Your task to perform on an android device: uninstall "NewsBreak: Local News & Alerts" Image 0: 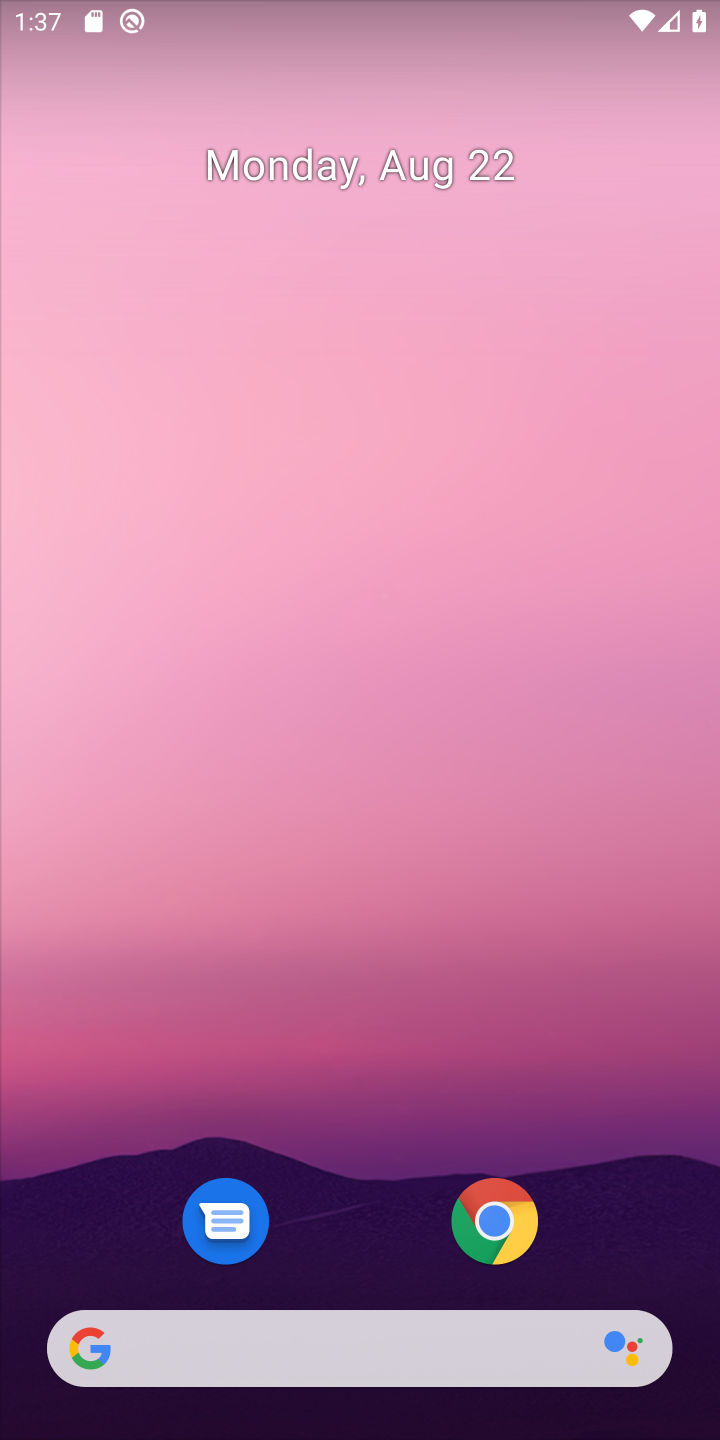
Step 0: press home button
Your task to perform on an android device: uninstall "NewsBreak: Local News & Alerts" Image 1: 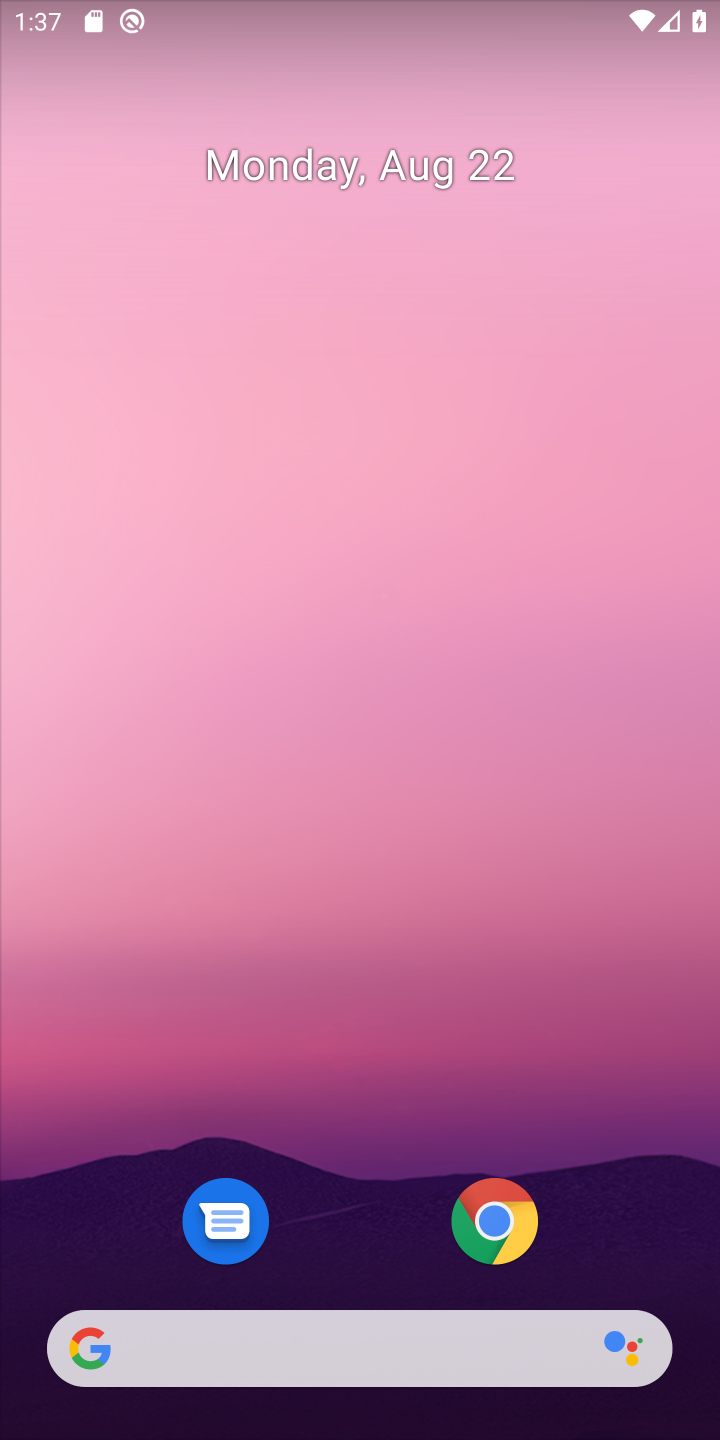
Step 1: press home button
Your task to perform on an android device: uninstall "NewsBreak: Local News & Alerts" Image 2: 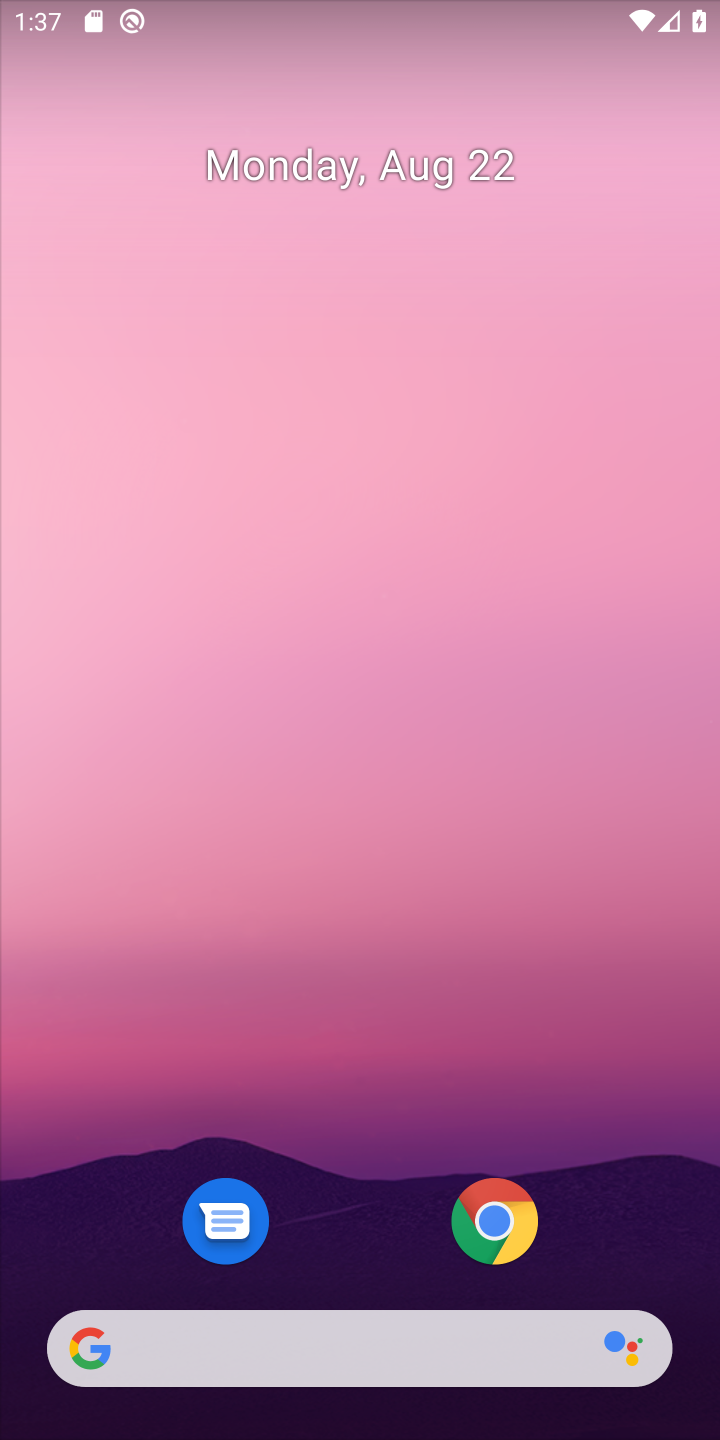
Step 2: drag from (344, 1251) to (458, 0)
Your task to perform on an android device: uninstall "NewsBreak: Local News & Alerts" Image 3: 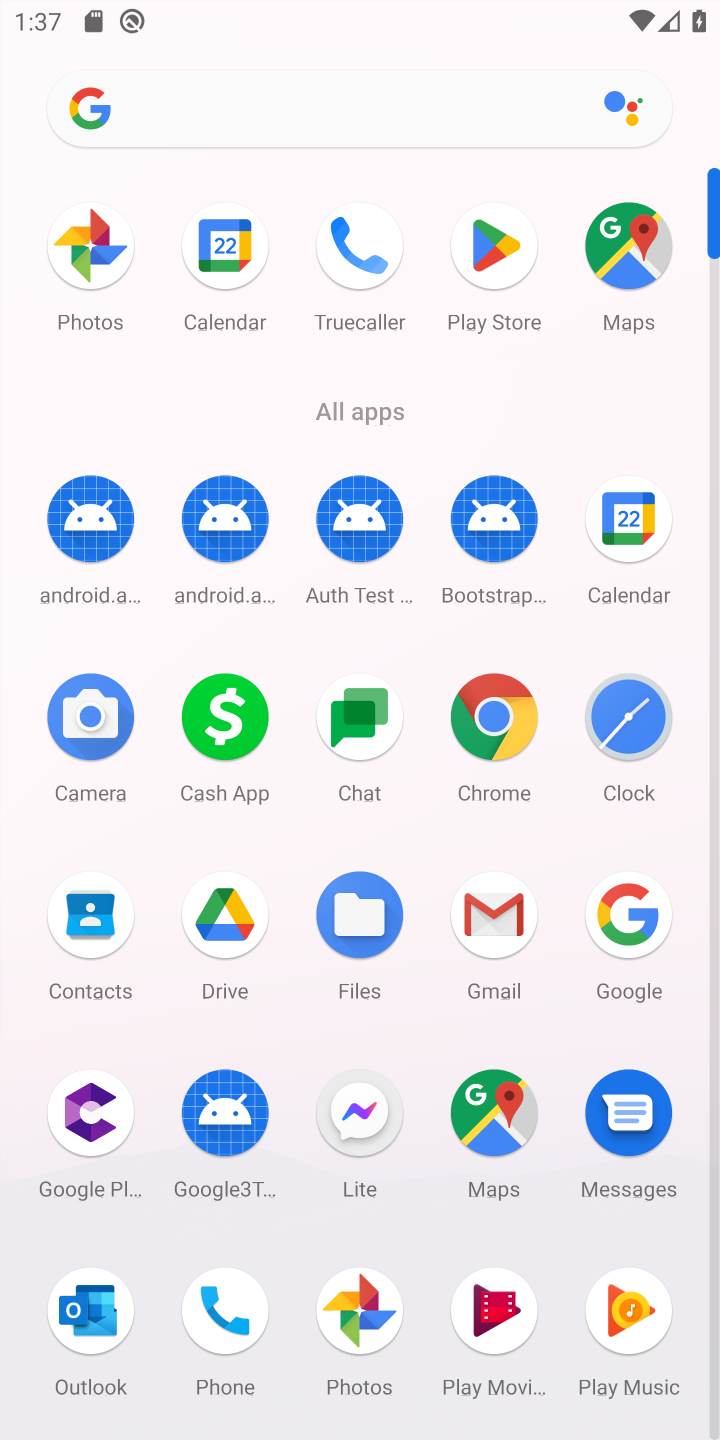
Step 3: click (490, 238)
Your task to perform on an android device: uninstall "NewsBreak: Local News & Alerts" Image 4: 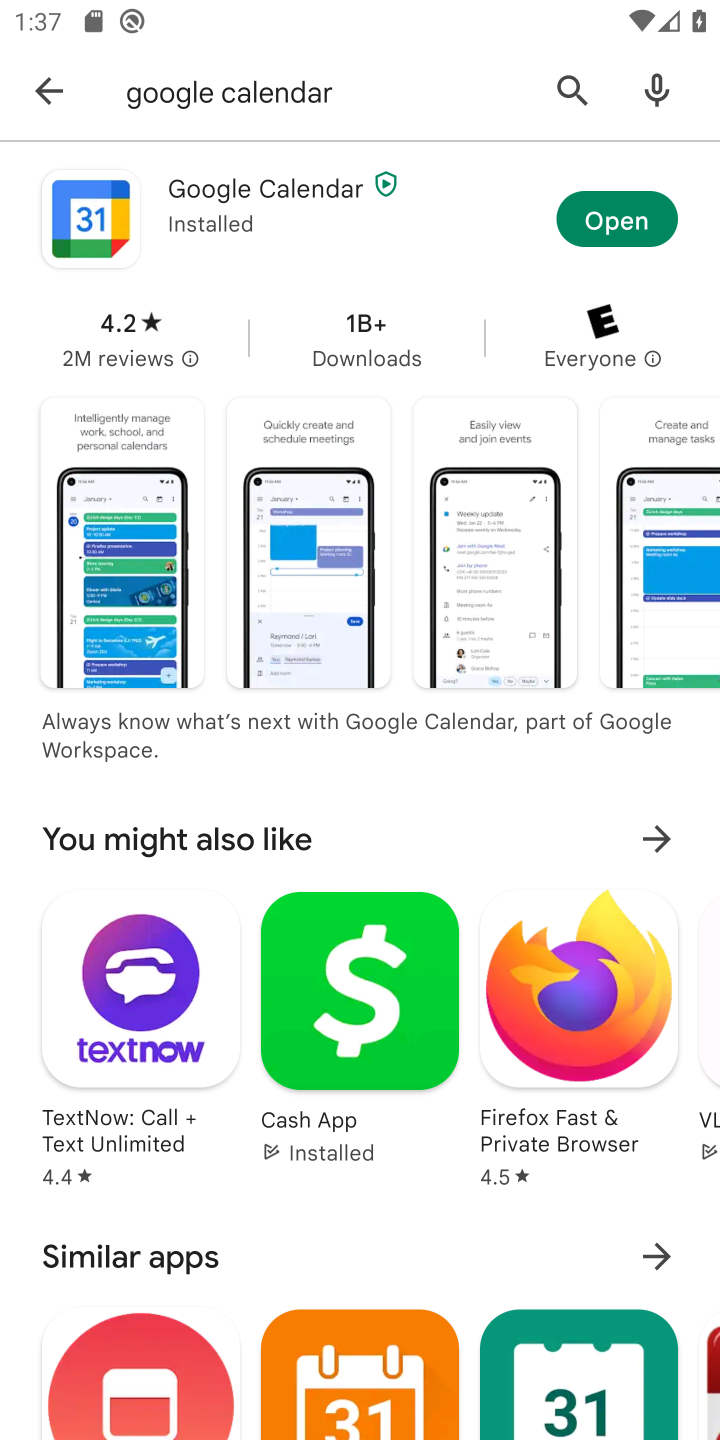
Step 4: click (569, 85)
Your task to perform on an android device: uninstall "NewsBreak: Local News & Alerts" Image 5: 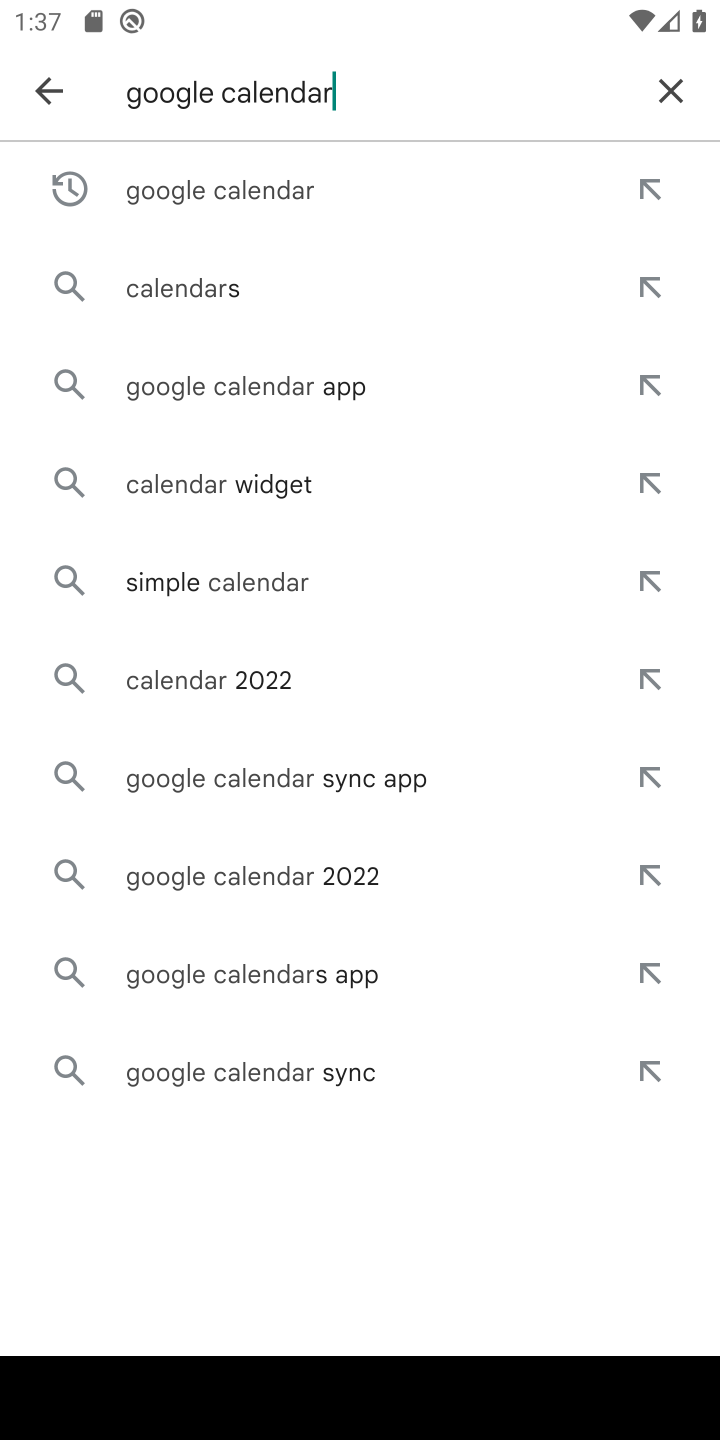
Step 5: click (669, 97)
Your task to perform on an android device: uninstall "NewsBreak: Local News & Alerts" Image 6: 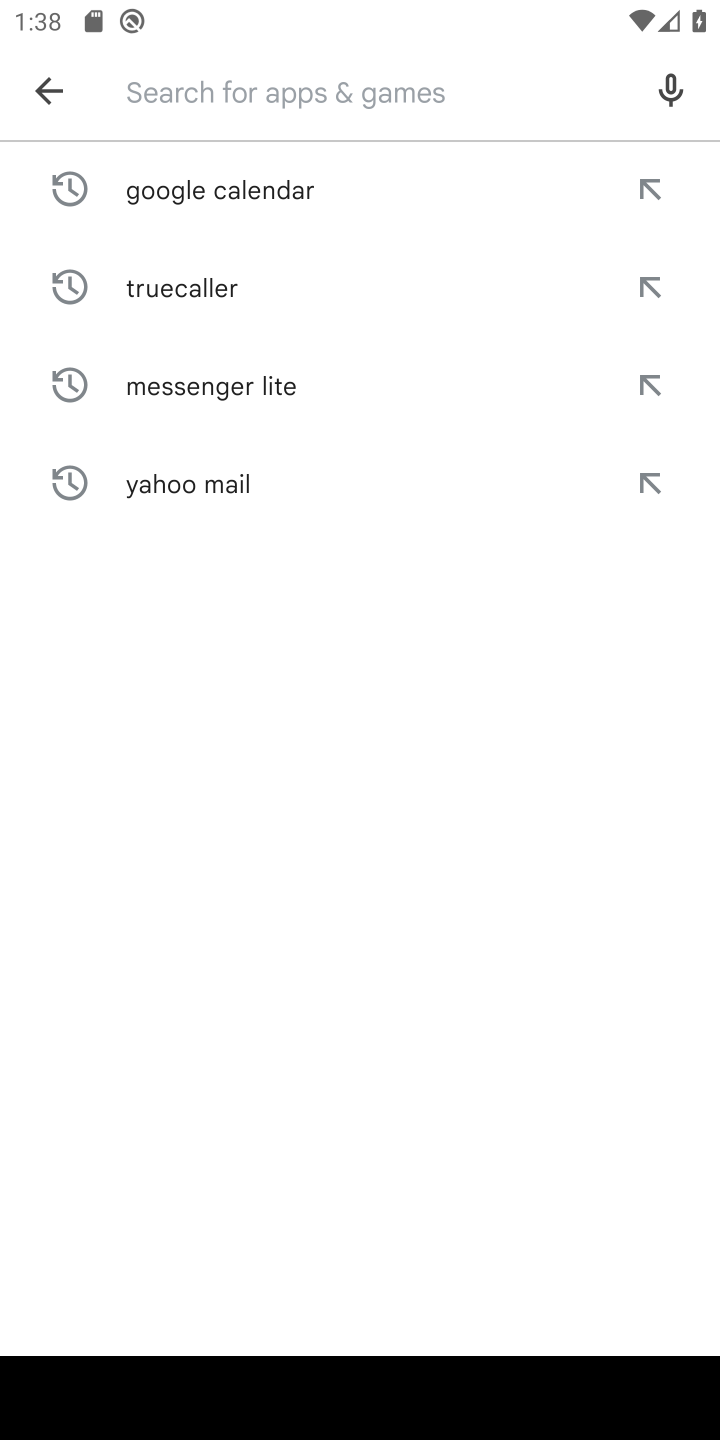
Step 6: type "NewsBreak: Local News & Alerts"
Your task to perform on an android device: uninstall "NewsBreak: Local News & Alerts" Image 7: 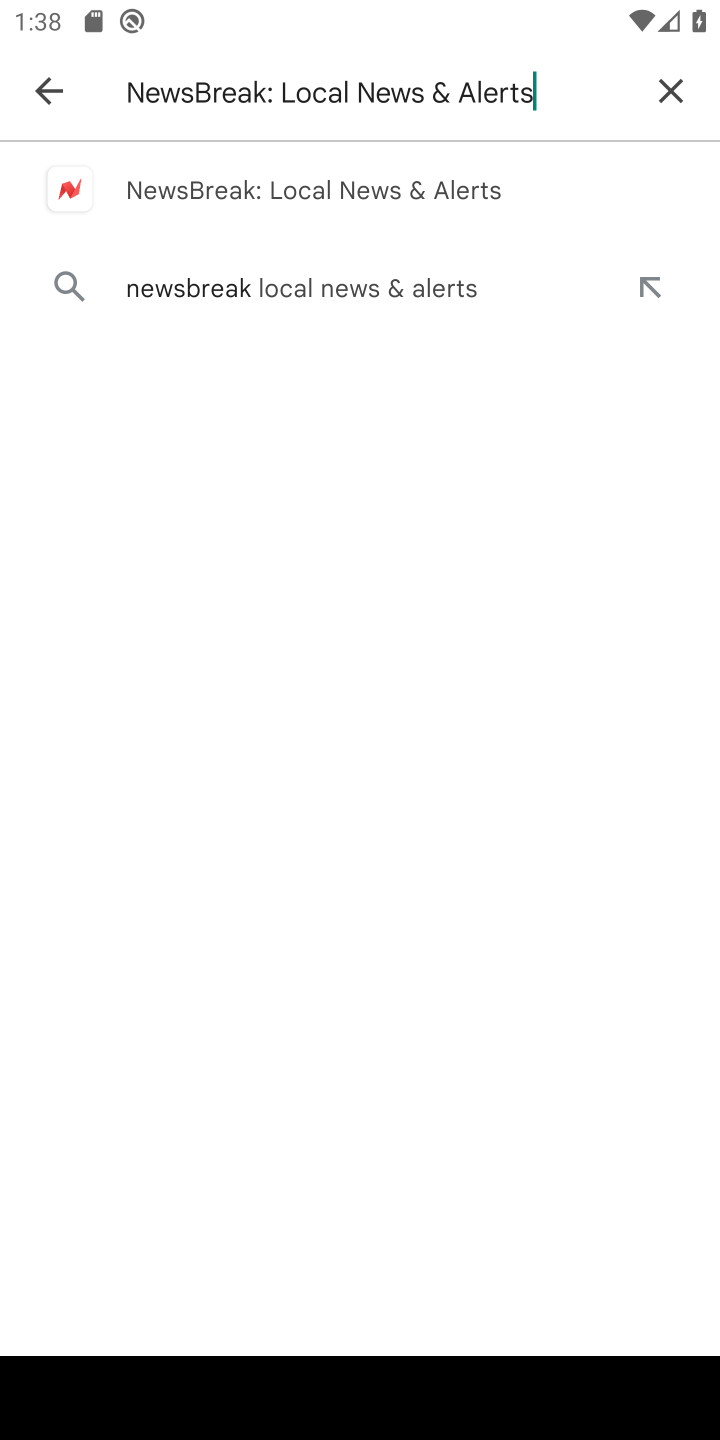
Step 7: click (512, 179)
Your task to perform on an android device: uninstall "NewsBreak: Local News & Alerts" Image 8: 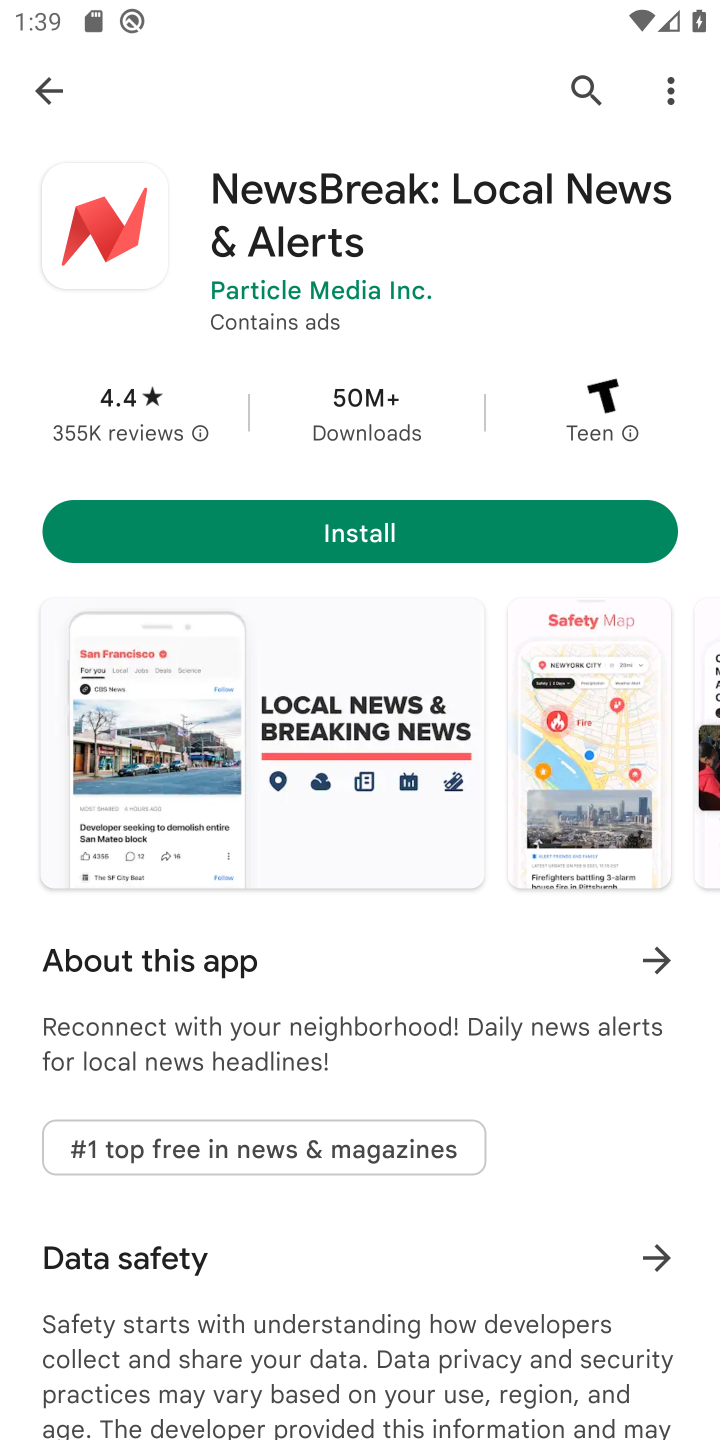
Step 8: task complete